Your task to perform on an android device: create a new album in the google photos Image 0: 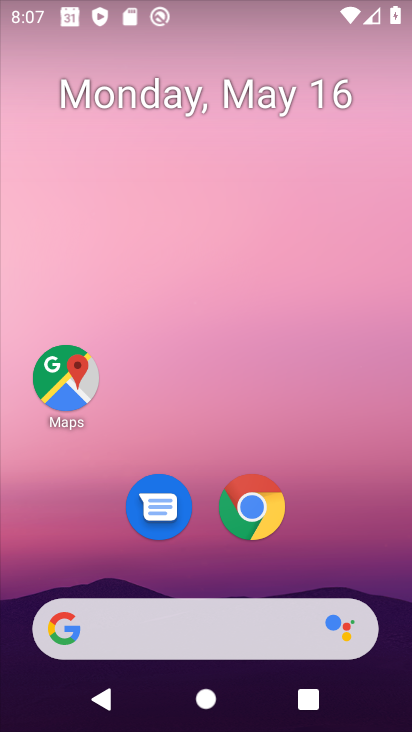
Step 0: drag from (350, 530) to (336, 146)
Your task to perform on an android device: create a new album in the google photos Image 1: 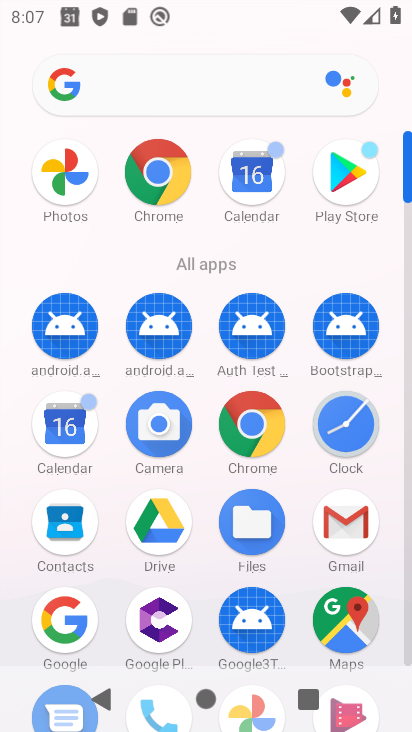
Step 1: drag from (280, 263) to (283, 43)
Your task to perform on an android device: create a new album in the google photos Image 2: 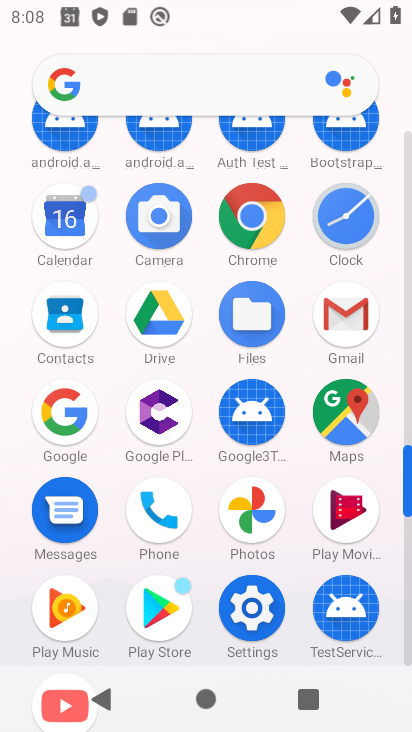
Step 2: click (250, 539)
Your task to perform on an android device: create a new album in the google photos Image 3: 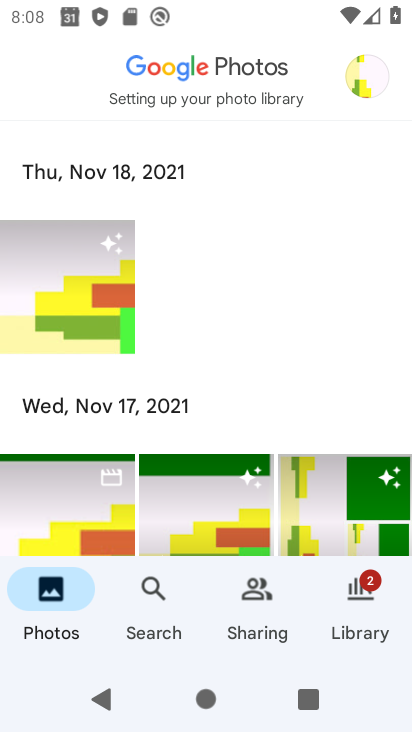
Step 3: click (118, 476)
Your task to perform on an android device: create a new album in the google photos Image 4: 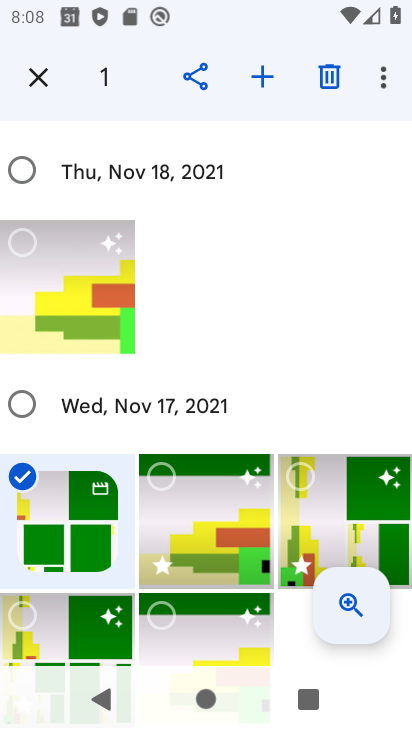
Step 4: click (164, 479)
Your task to perform on an android device: create a new album in the google photos Image 5: 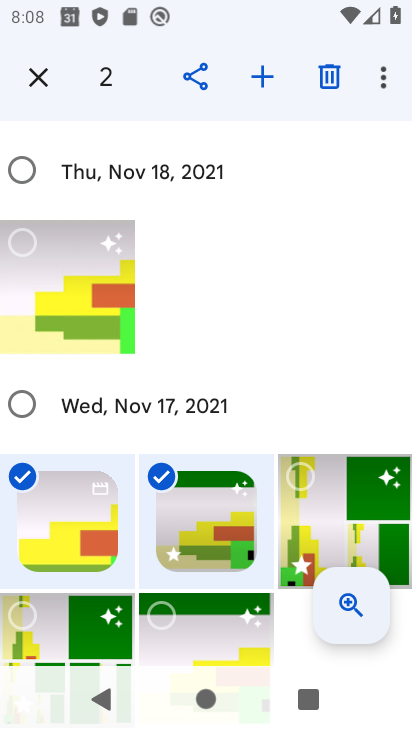
Step 5: click (268, 81)
Your task to perform on an android device: create a new album in the google photos Image 6: 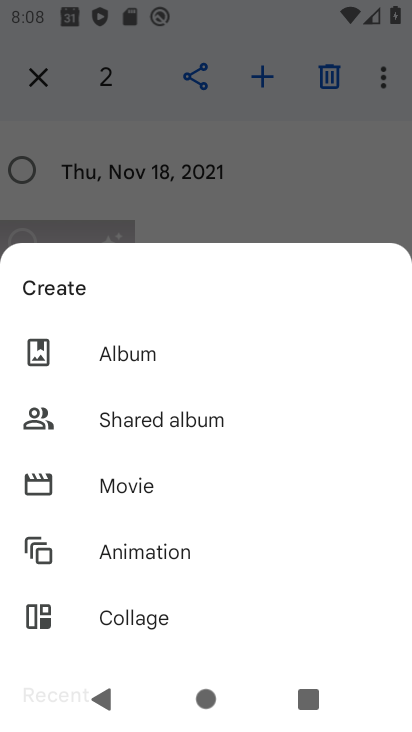
Step 6: click (145, 347)
Your task to perform on an android device: create a new album in the google photos Image 7: 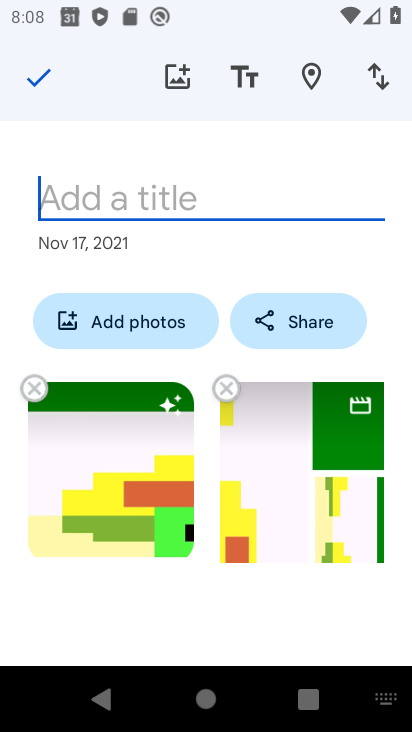
Step 7: type "nmmh"
Your task to perform on an android device: create a new album in the google photos Image 8: 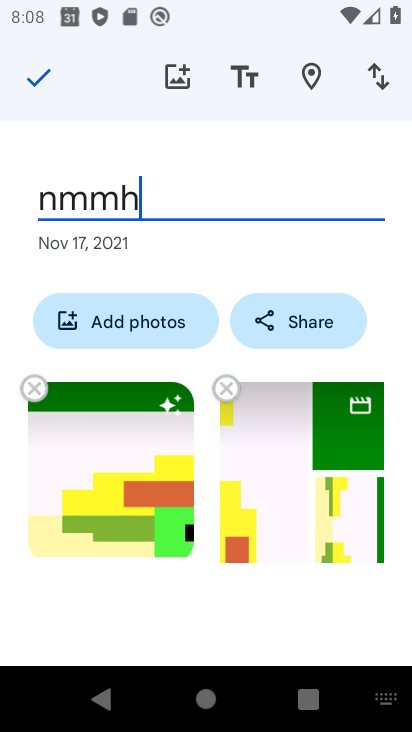
Step 8: click (39, 74)
Your task to perform on an android device: create a new album in the google photos Image 9: 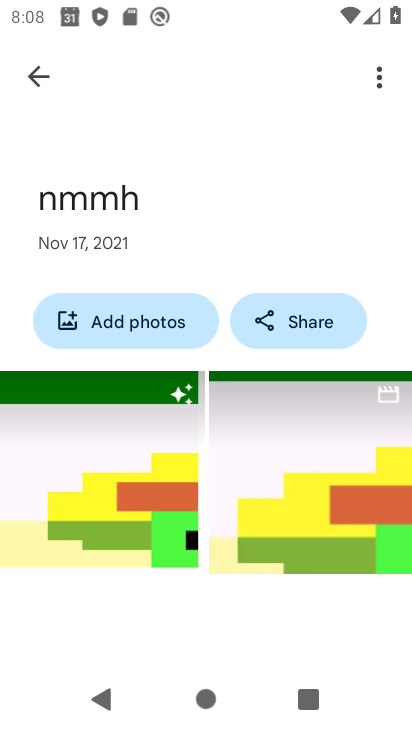
Step 9: task complete